Your task to perform on an android device: Show the shopping cart on amazon. Add "macbook pro" to the cart on amazon Image 0: 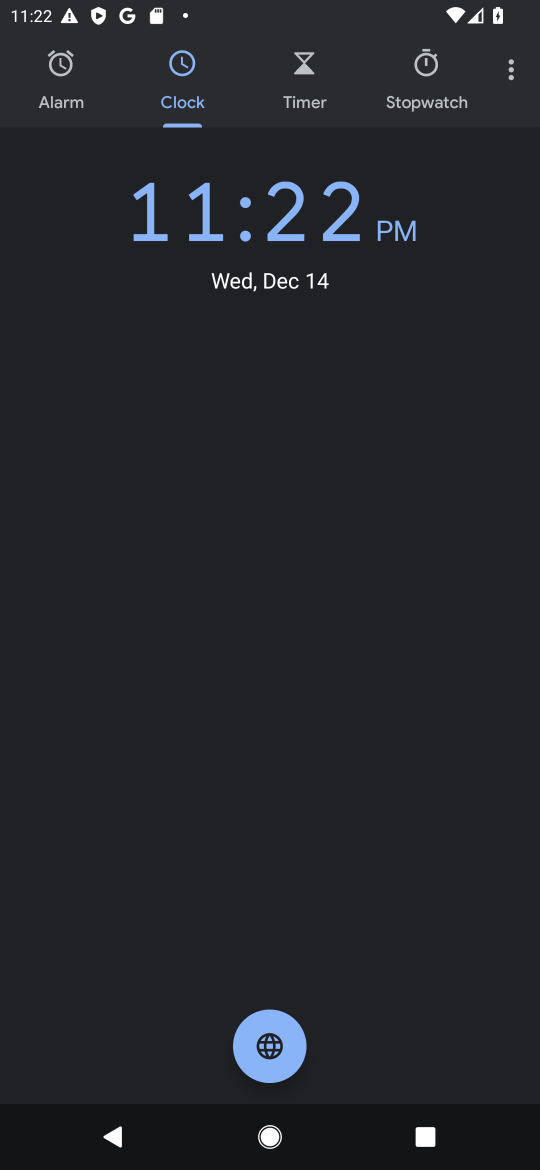
Step 0: press home button
Your task to perform on an android device: Show the shopping cart on amazon. Add "macbook pro" to the cart on amazon Image 1: 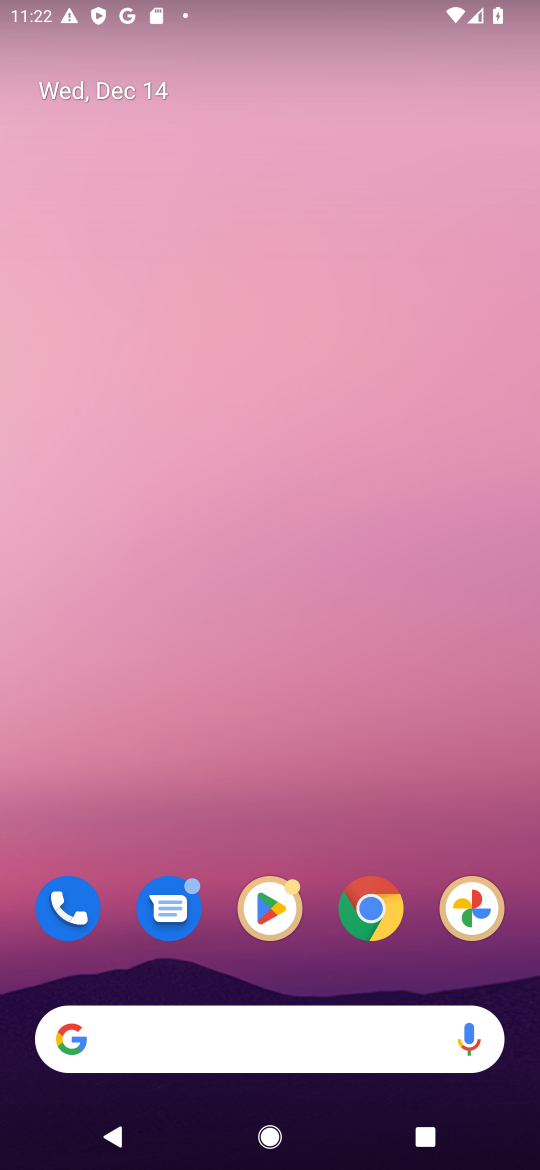
Step 1: click (377, 911)
Your task to perform on an android device: Show the shopping cart on amazon. Add "macbook pro" to the cart on amazon Image 2: 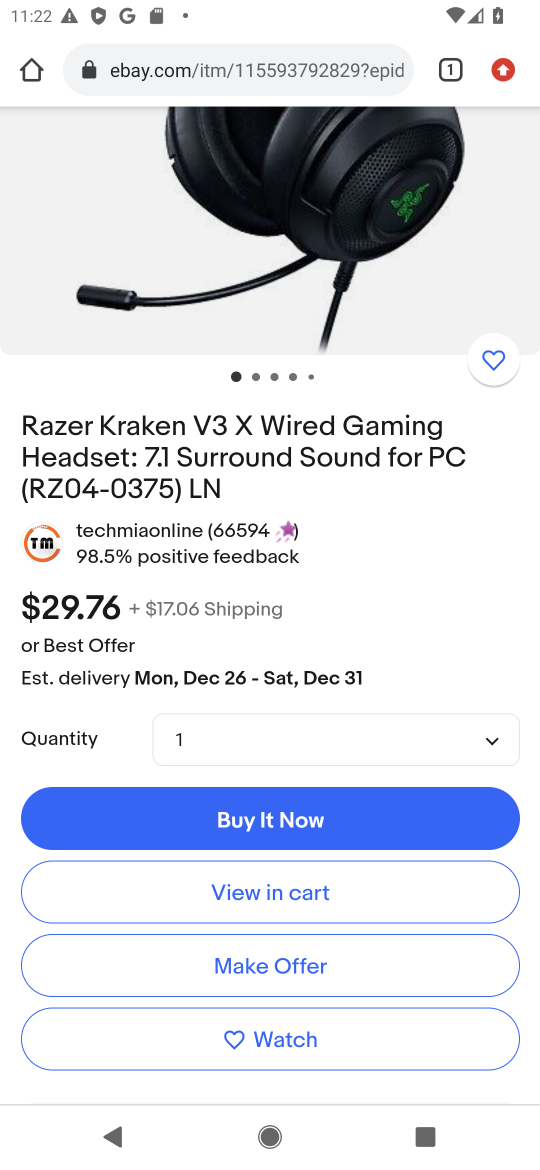
Step 2: click (283, 83)
Your task to perform on an android device: Show the shopping cart on amazon. Add "macbook pro" to the cart on amazon Image 3: 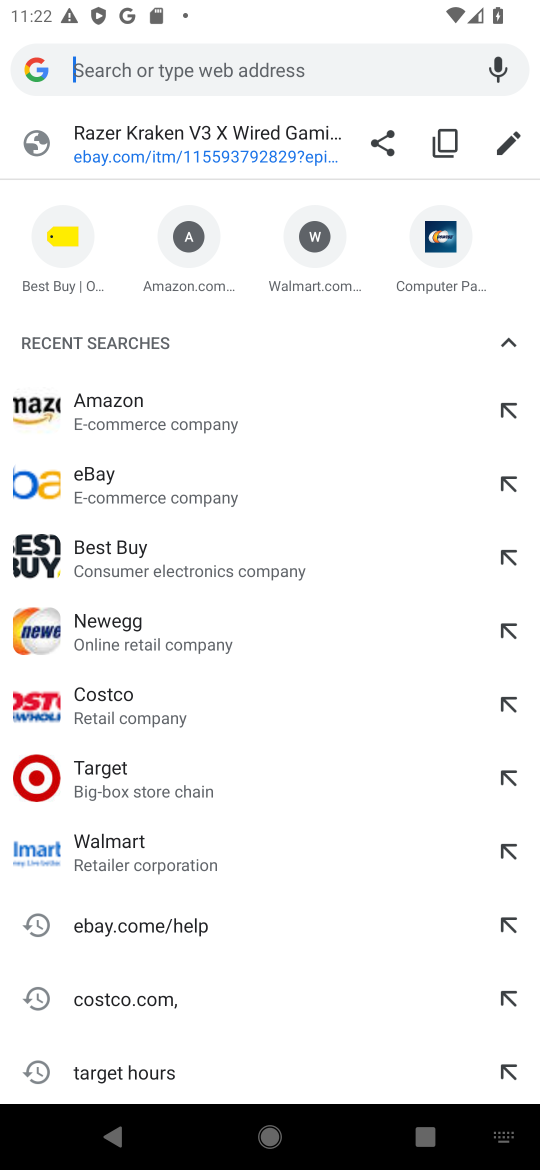
Step 3: type "amazon"
Your task to perform on an android device: Show the shopping cart on amazon. Add "macbook pro" to the cart on amazon Image 4: 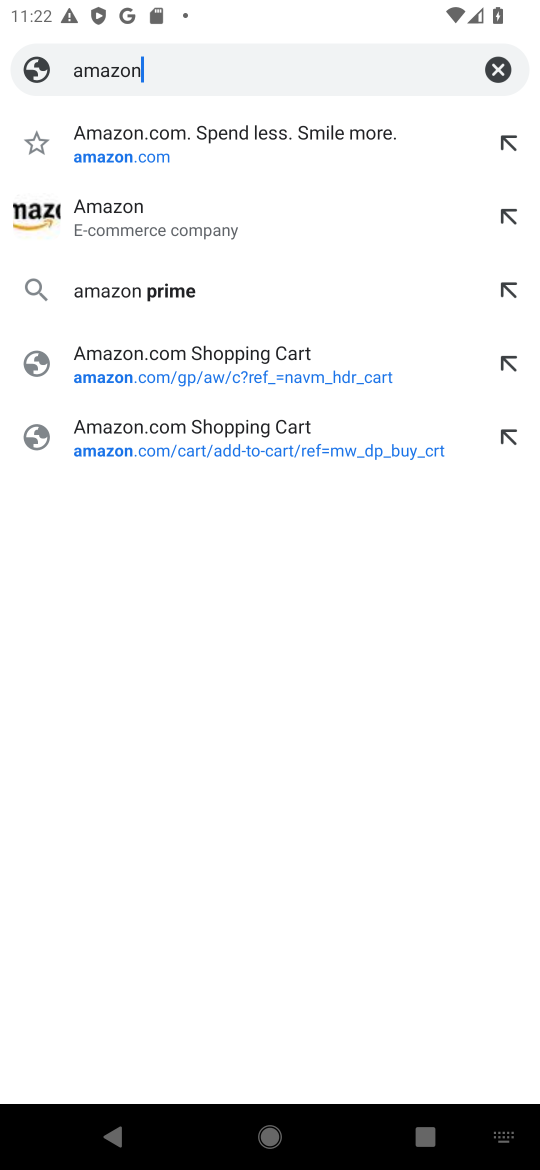
Step 4: click (88, 231)
Your task to perform on an android device: Show the shopping cart on amazon. Add "macbook pro" to the cart on amazon Image 5: 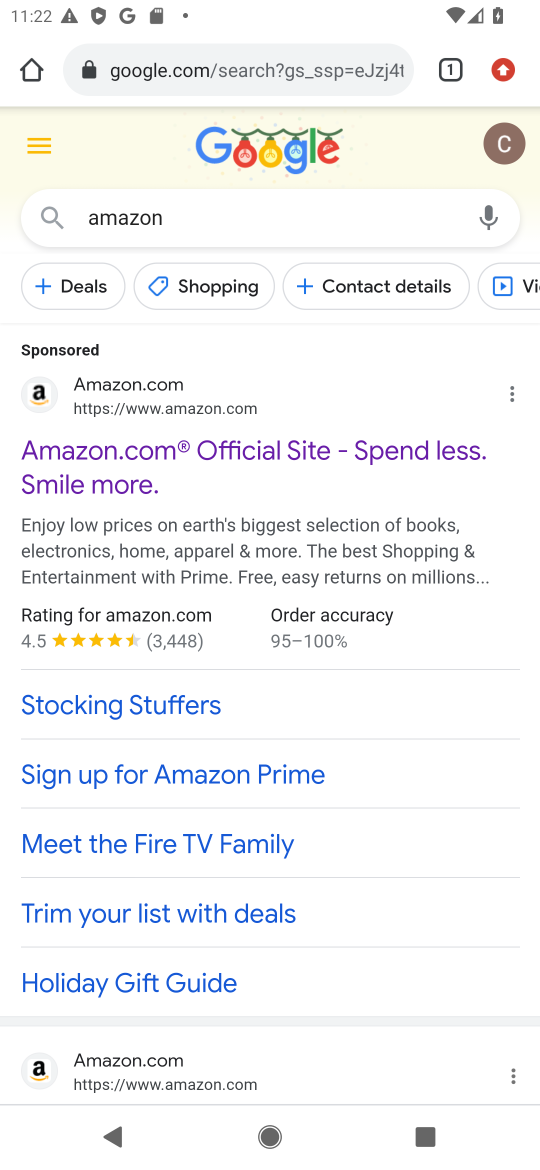
Step 5: click (196, 457)
Your task to perform on an android device: Show the shopping cart on amazon. Add "macbook pro" to the cart on amazon Image 6: 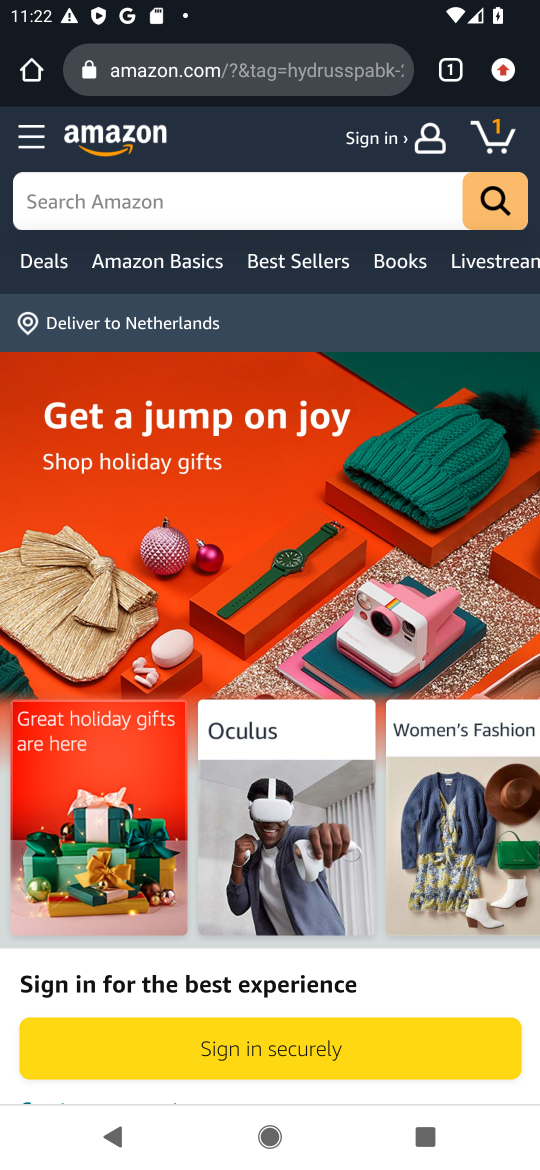
Step 6: click (136, 215)
Your task to perform on an android device: Show the shopping cart on amazon. Add "macbook pro" to the cart on amazon Image 7: 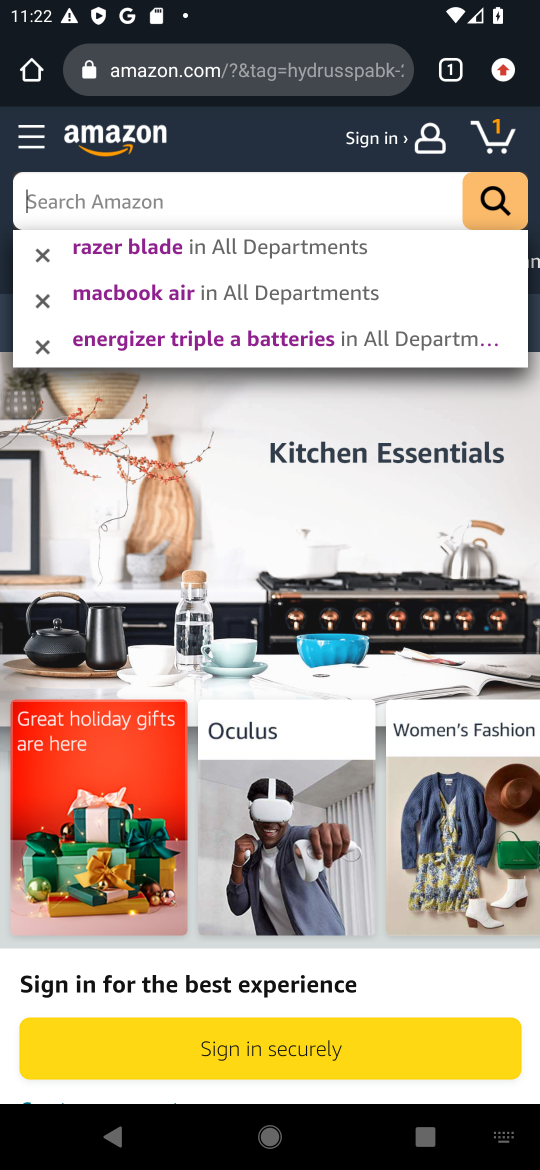
Step 7: type "macbook pro"
Your task to perform on an android device: Show the shopping cart on amazon. Add "macbook pro" to the cart on amazon Image 8: 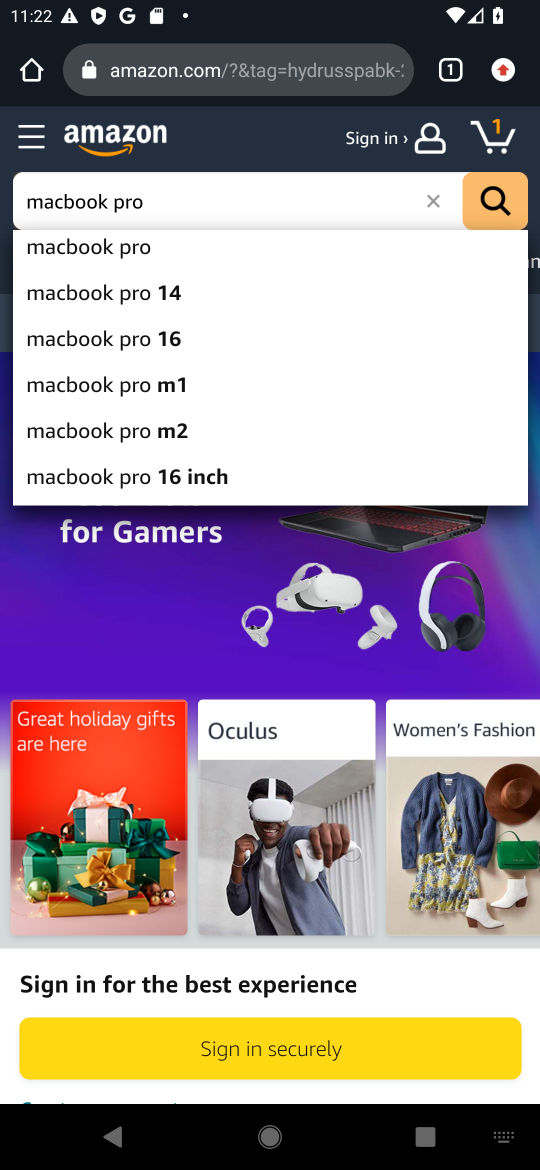
Step 8: click (107, 303)
Your task to perform on an android device: Show the shopping cart on amazon. Add "macbook pro" to the cart on amazon Image 9: 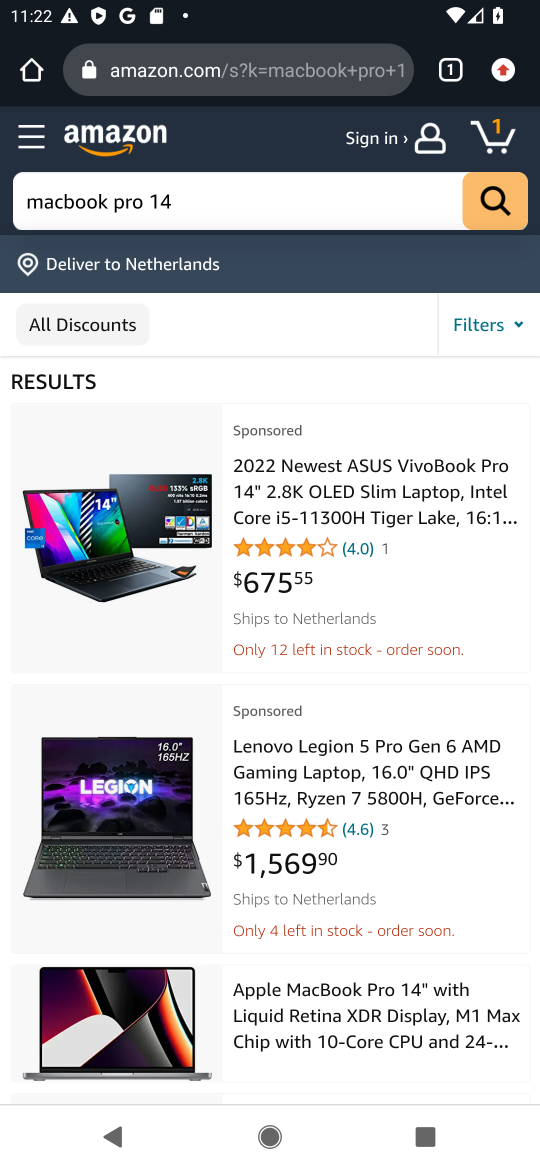
Step 9: click (374, 536)
Your task to perform on an android device: Show the shopping cart on amazon. Add "macbook pro" to the cart on amazon Image 10: 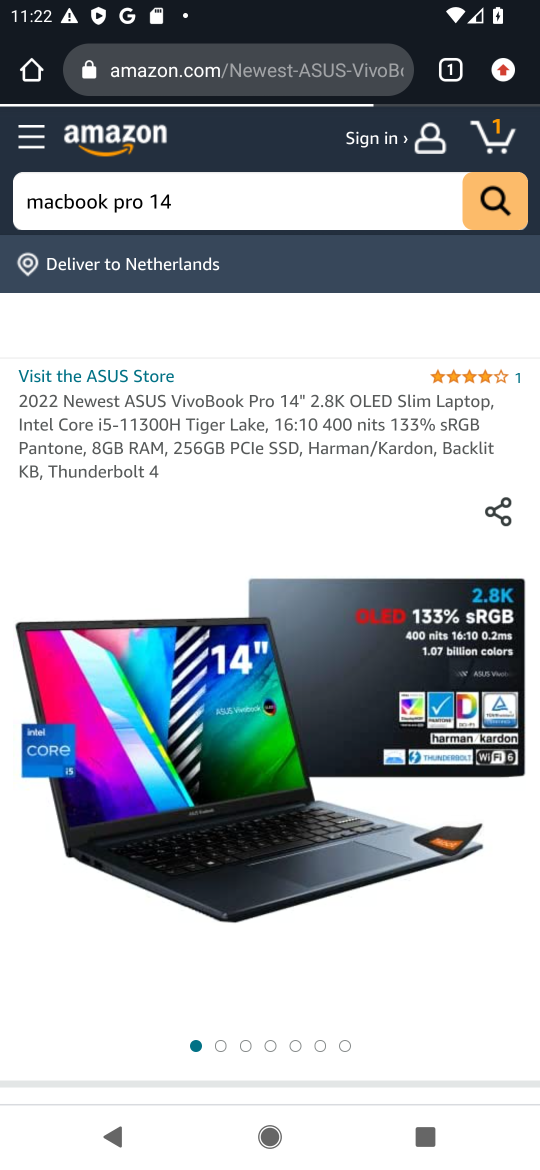
Step 10: drag from (300, 884) to (312, 758)
Your task to perform on an android device: Show the shopping cart on amazon. Add "macbook pro" to the cart on amazon Image 11: 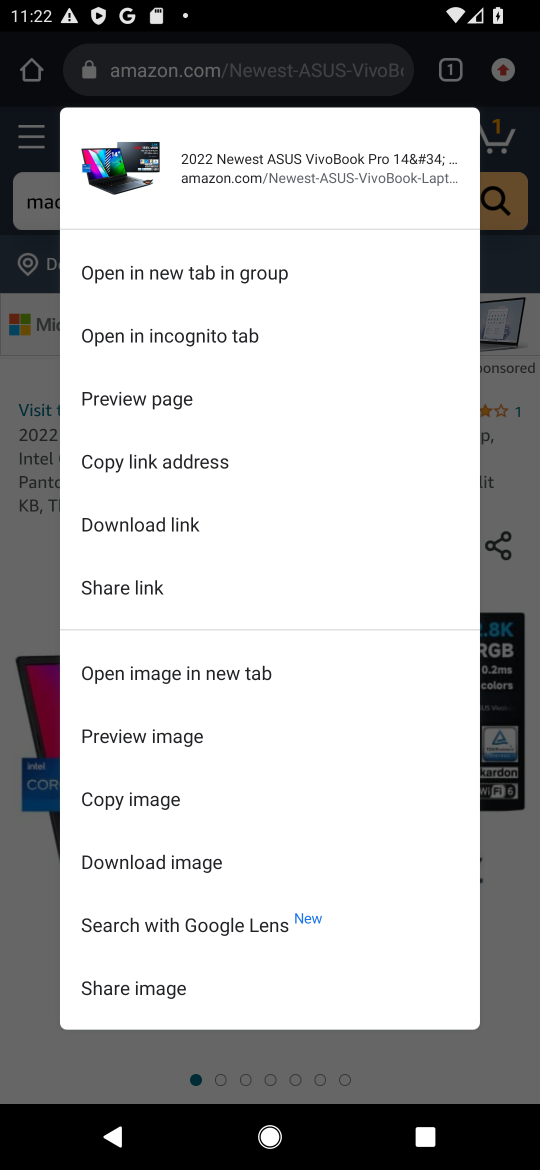
Step 11: click (491, 887)
Your task to perform on an android device: Show the shopping cart on amazon. Add "macbook pro" to the cart on amazon Image 12: 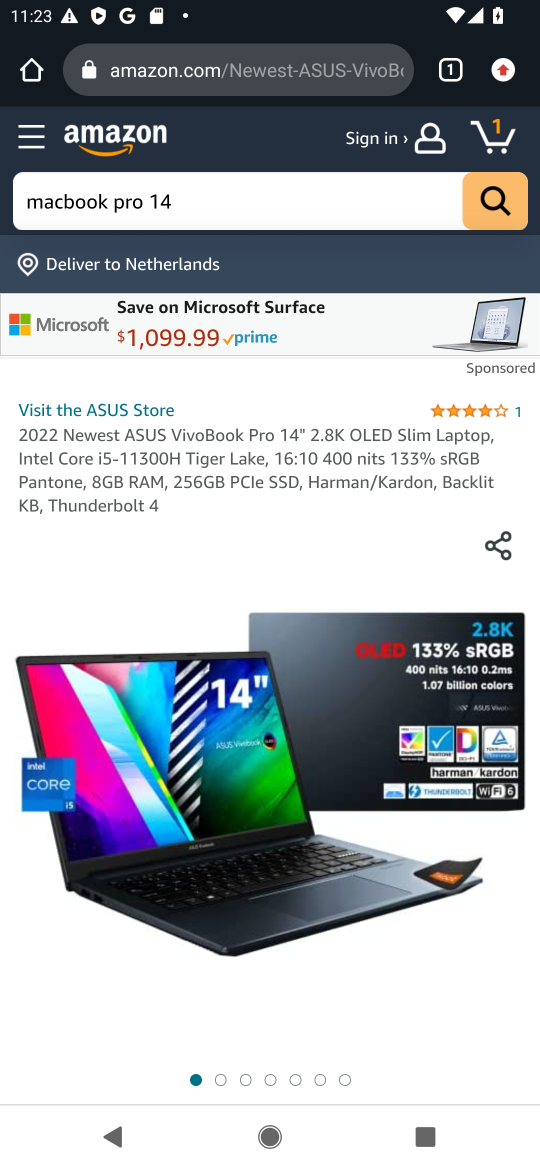
Step 12: drag from (303, 1005) to (257, 259)
Your task to perform on an android device: Show the shopping cart on amazon. Add "macbook pro" to the cart on amazon Image 13: 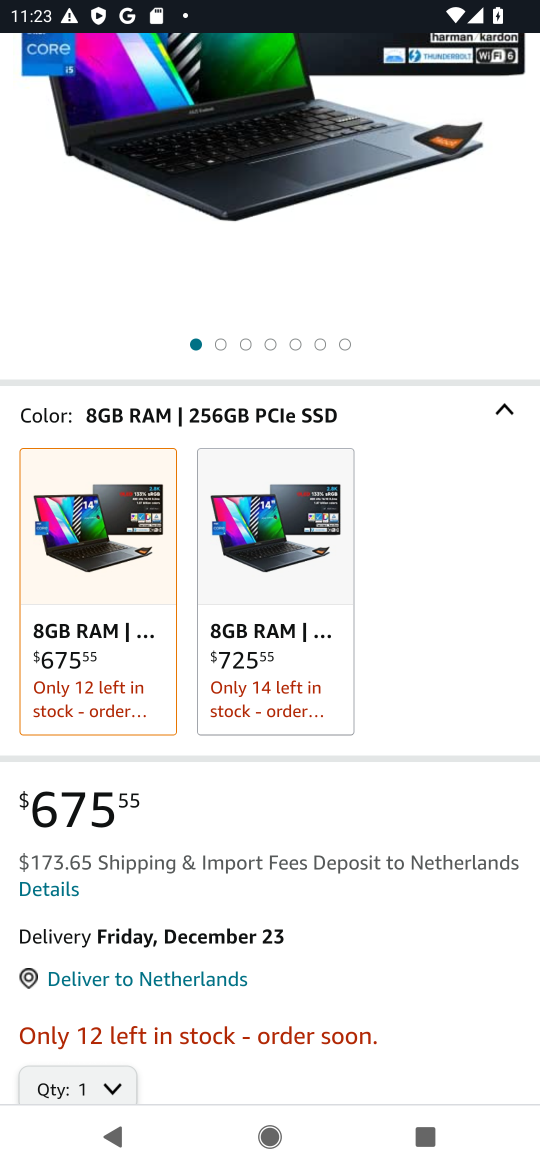
Step 13: drag from (394, 957) to (382, 346)
Your task to perform on an android device: Show the shopping cart on amazon. Add "macbook pro" to the cart on amazon Image 14: 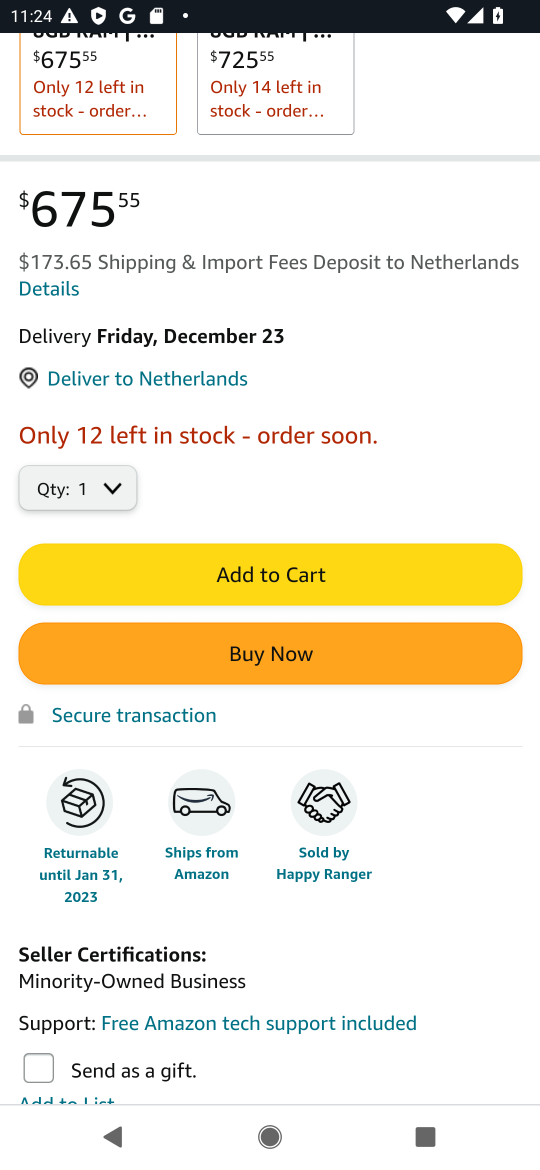
Step 14: click (395, 581)
Your task to perform on an android device: Show the shopping cart on amazon. Add "macbook pro" to the cart on amazon Image 15: 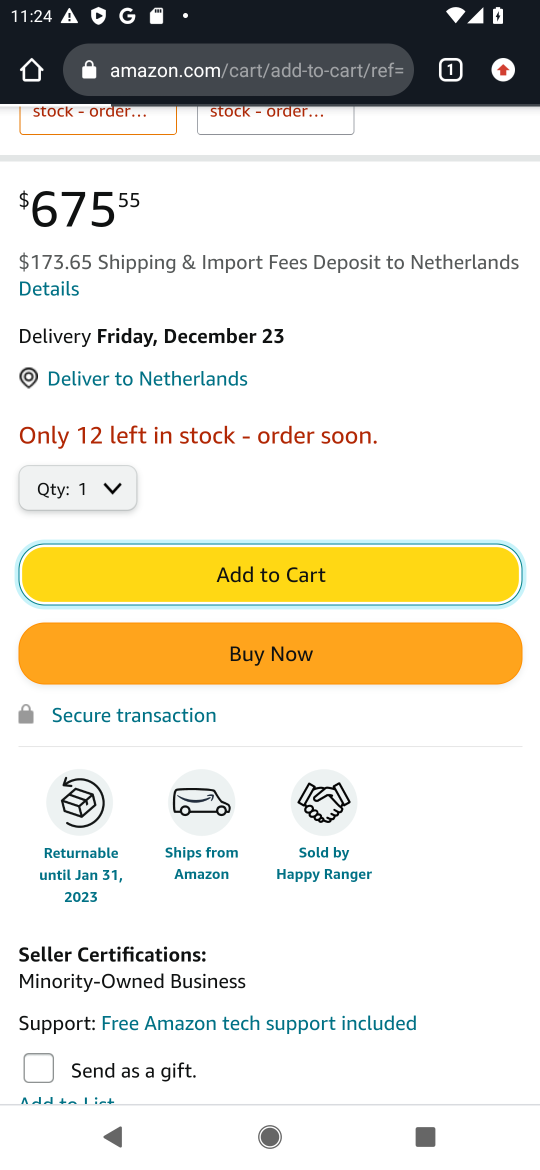
Step 15: task complete